Your task to perform on an android device: Go to Maps Image 0: 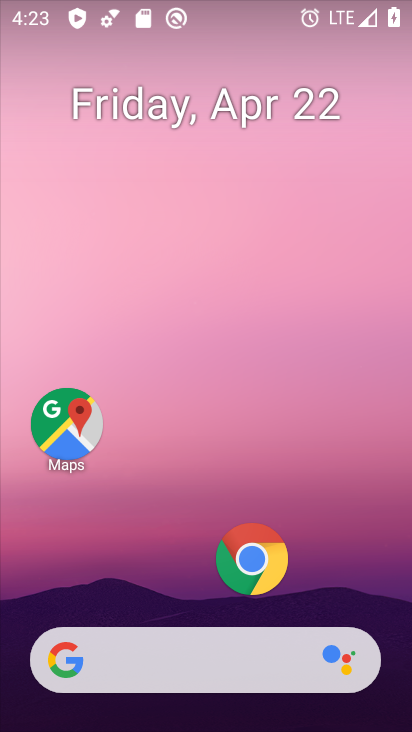
Step 0: click (52, 431)
Your task to perform on an android device: Go to Maps Image 1: 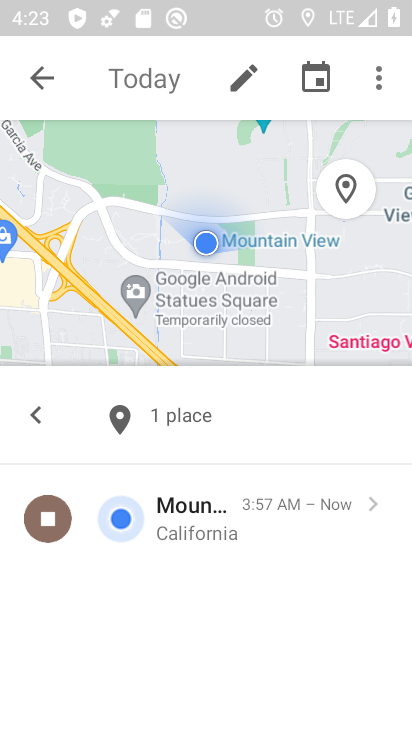
Step 1: click (39, 82)
Your task to perform on an android device: Go to Maps Image 2: 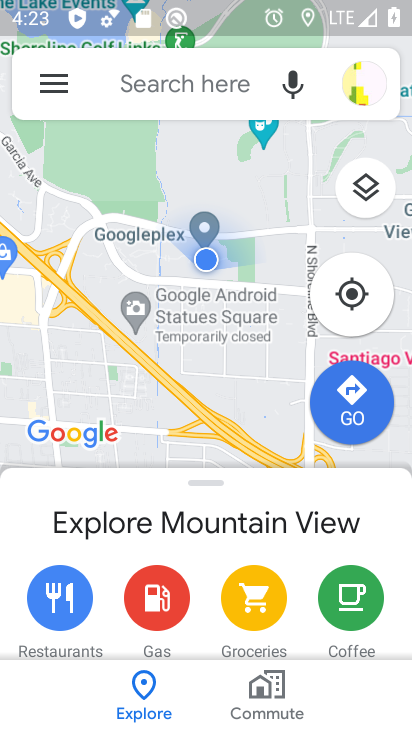
Step 2: task complete